Your task to perform on an android device: toggle show notifications on the lock screen Image 0: 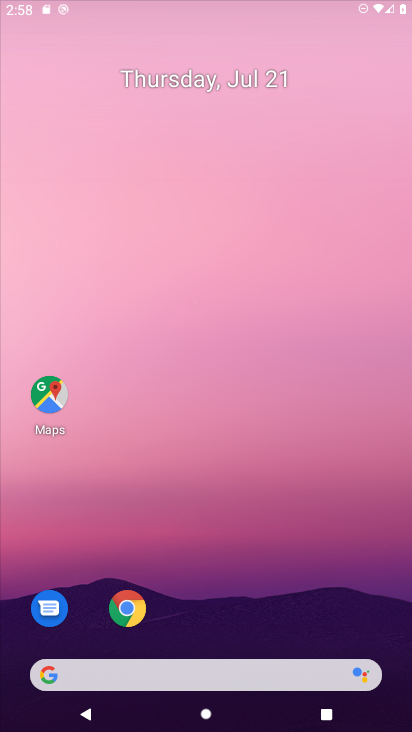
Step 0: drag from (178, 589) to (158, 189)
Your task to perform on an android device: toggle show notifications on the lock screen Image 1: 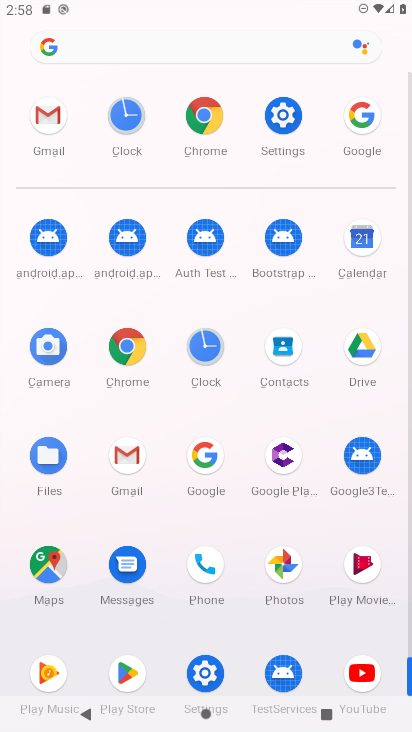
Step 1: click (282, 127)
Your task to perform on an android device: toggle show notifications on the lock screen Image 2: 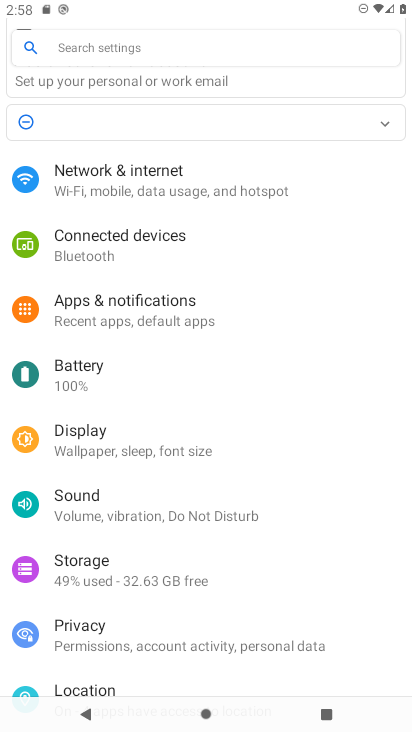
Step 2: click (195, 320)
Your task to perform on an android device: toggle show notifications on the lock screen Image 3: 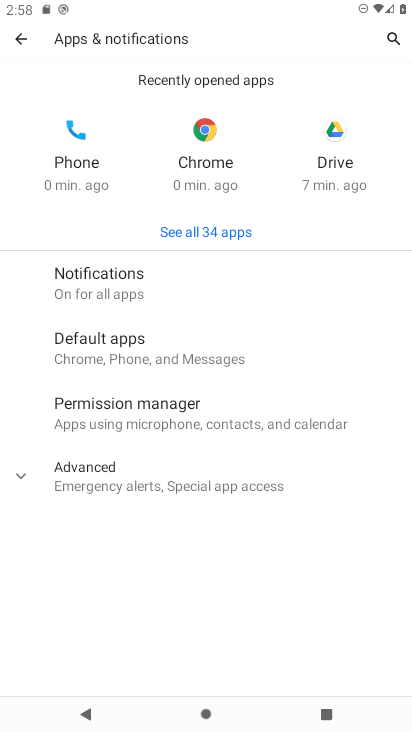
Step 3: click (164, 291)
Your task to perform on an android device: toggle show notifications on the lock screen Image 4: 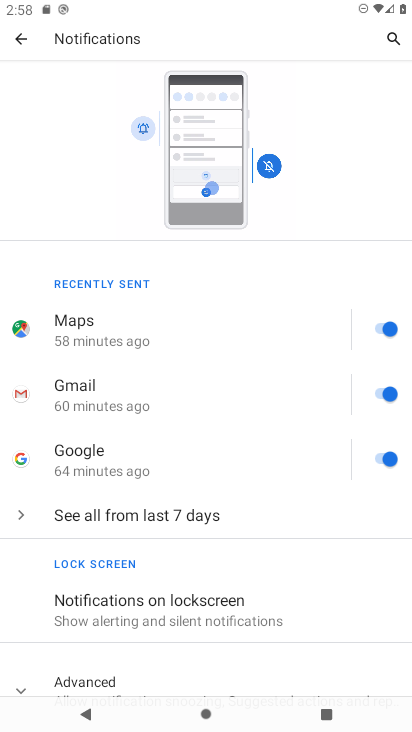
Step 4: click (183, 602)
Your task to perform on an android device: toggle show notifications on the lock screen Image 5: 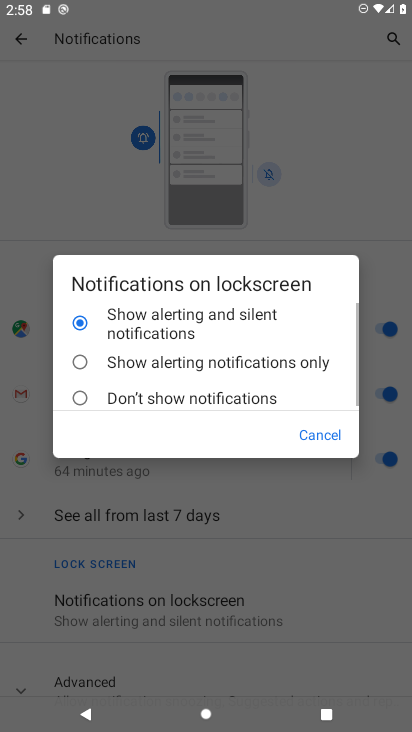
Step 5: click (200, 401)
Your task to perform on an android device: toggle show notifications on the lock screen Image 6: 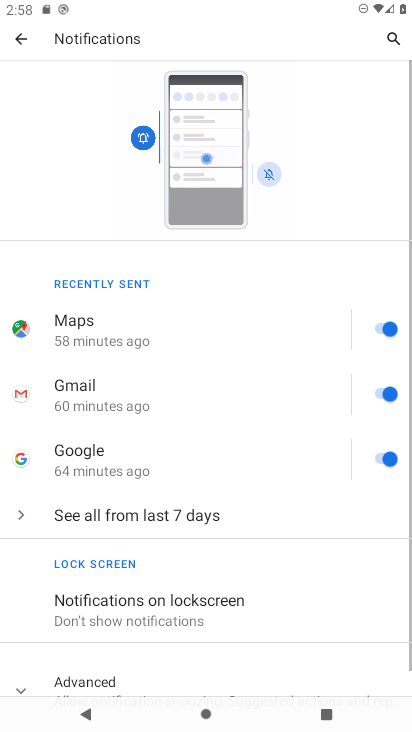
Step 6: task complete